Your task to perform on an android device: open sync settings in chrome Image 0: 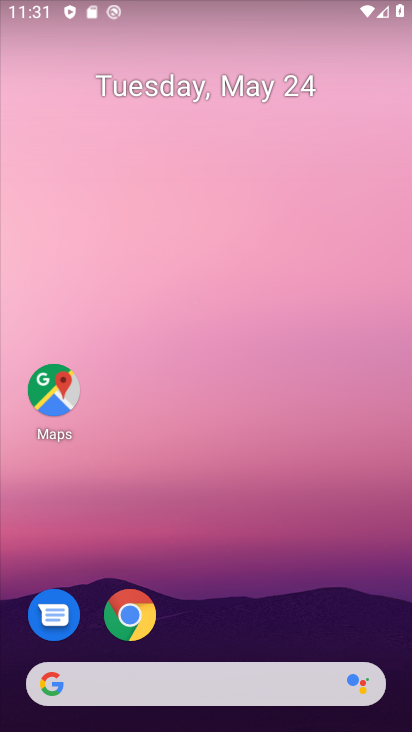
Step 0: click (130, 615)
Your task to perform on an android device: open sync settings in chrome Image 1: 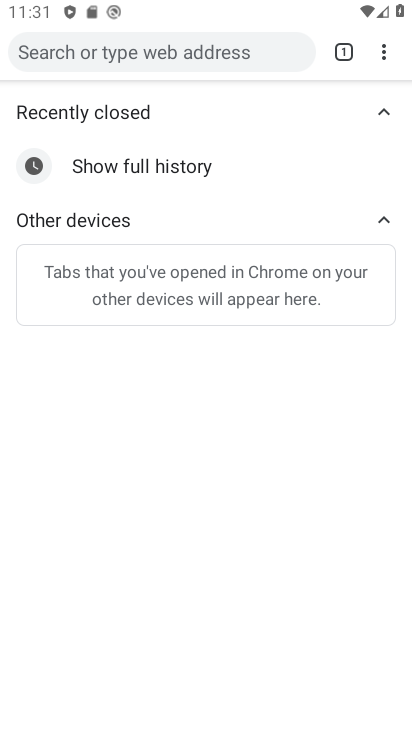
Step 1: click (385, 52)
Your task to perform on an android device: open sync settings in chrome Image 2: 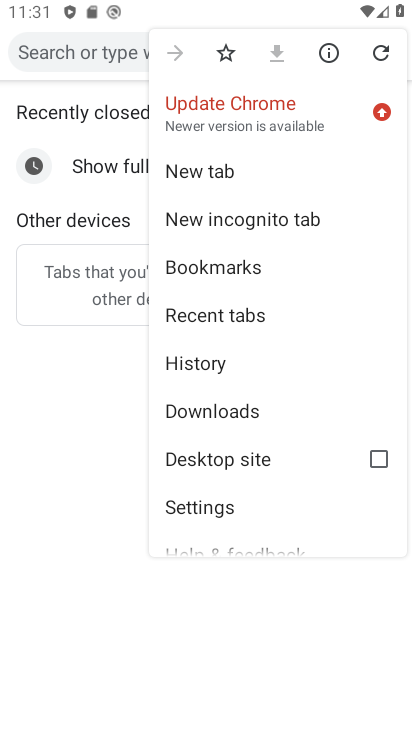
Step 2: click (200, 511)
Your task to perform on an android device: open sync settings in chrome Image 3: 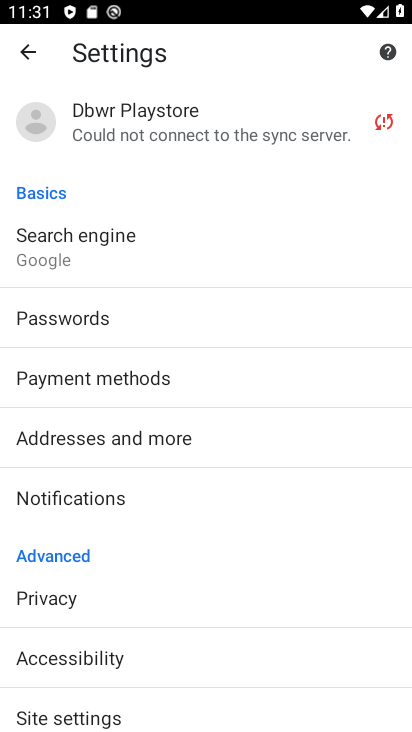
Step 3: drag from (101, 531) to (137, 440)
Your task to perform on an android device: open sync settings in chrome Image 4: 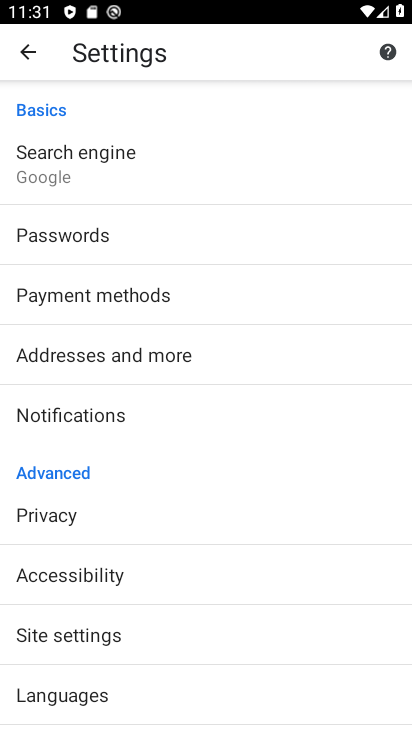
Step 4: drag from (85, 559) to (117, 478)
Your task to perform on an android device: open sync settings in chrome Image 5: 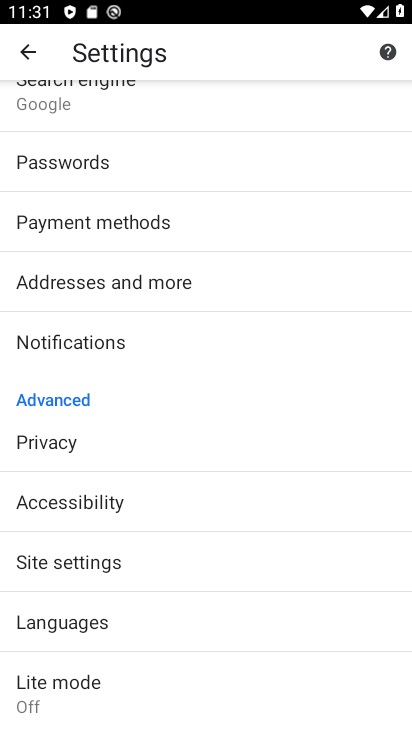
Step 5: drag from (78, 536) to (144, 440)
Your task to perform on an android device: open sync settings in chrome Image 6: 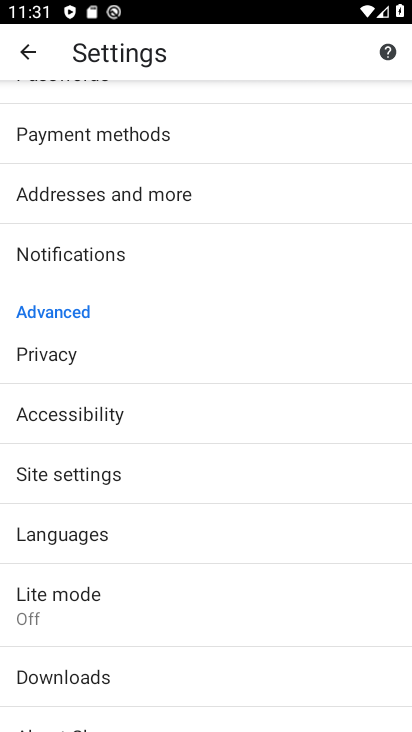
Step 6: click (79, 479)
Your task to perform on an android device: open sync settings in chrome Image 7: 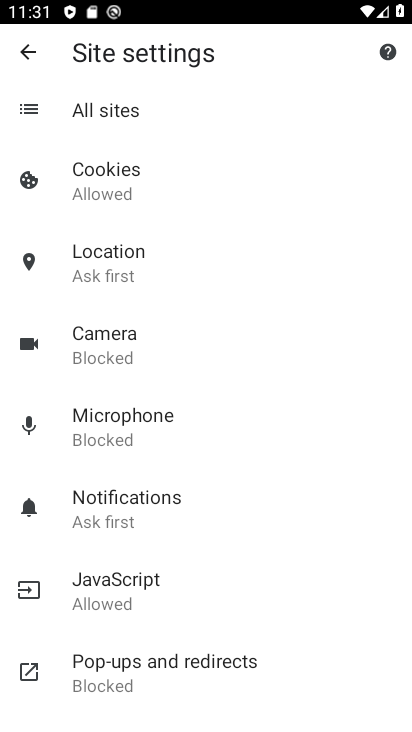
Step 7: drag from (141, 551) to (152, 456)
Your task to perform on an android device: open sync settings in chrome Image 8: 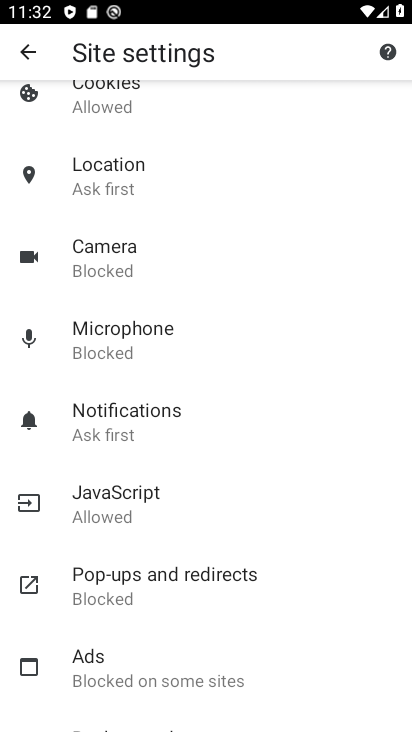
Step 8: drag from (129, 625) to (152, 526)
Your task to perform on an android device: open sync settings in chrome Image 9: 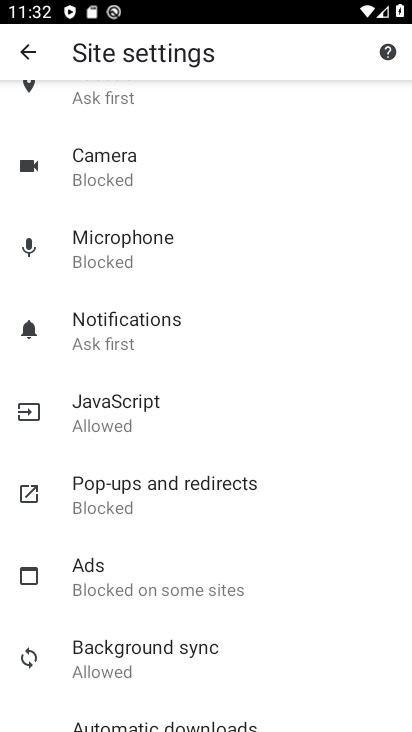
Step 9: drag from (113, 614) to (170, 491)
Your task to perform on an android device: open sync settings in chrome Image 10: 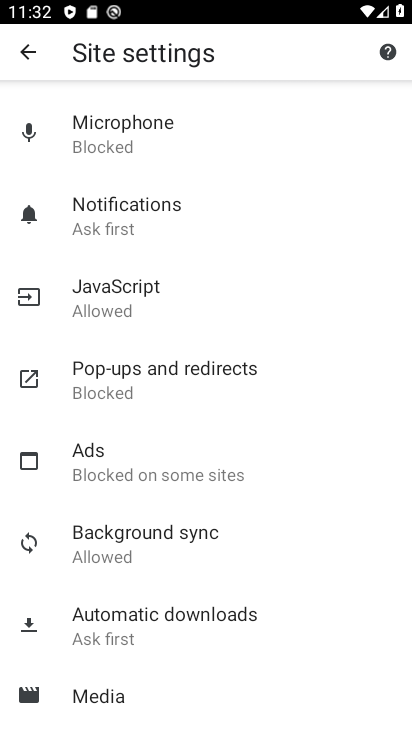
Step 10: click (142, 534)
Your task to perform on an android device: open sync settings in chrome Image 11: 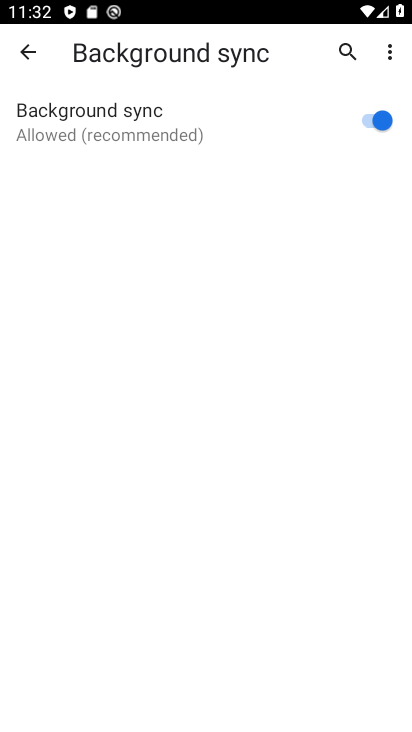
Step 11: task complete